Your task to perform on an android device: move a message to another label in the gmail app Image 0: 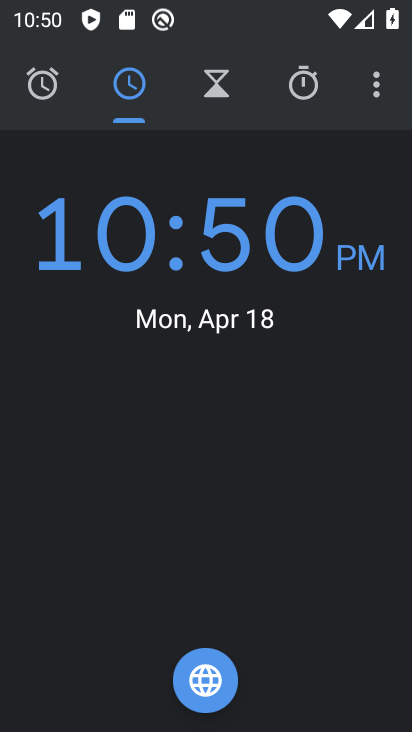
Step 0: press home button
Your task to perform on an android device: move a message to another label in the gmail app Image 1: 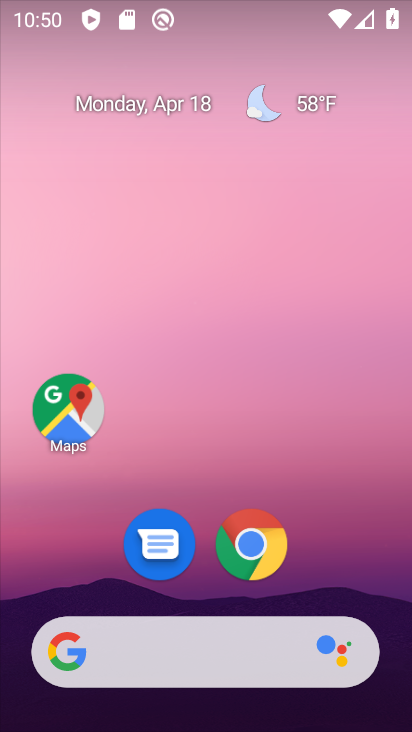
Step 1: drag from (211, 482) to (231, 75)
Your task to perform on an android device: move a message to another label in the gmail app Image 2: 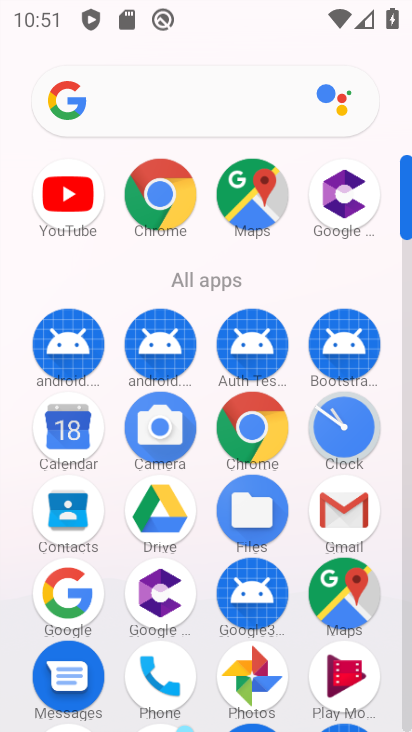
Step 2: drag from (291, 549) to (325, 306)
Your task to perform on an android device: move a message to another label in the gmail app Image 3: 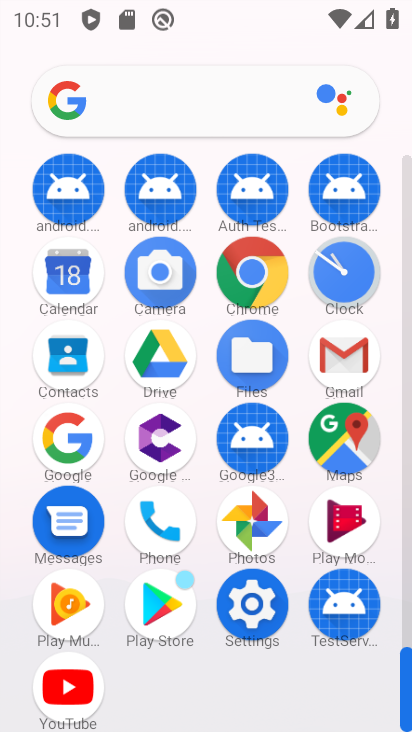
Step 3: click (348, 354)
Your task to perform on an android device: move a message to another label in the gmail app Image 4: 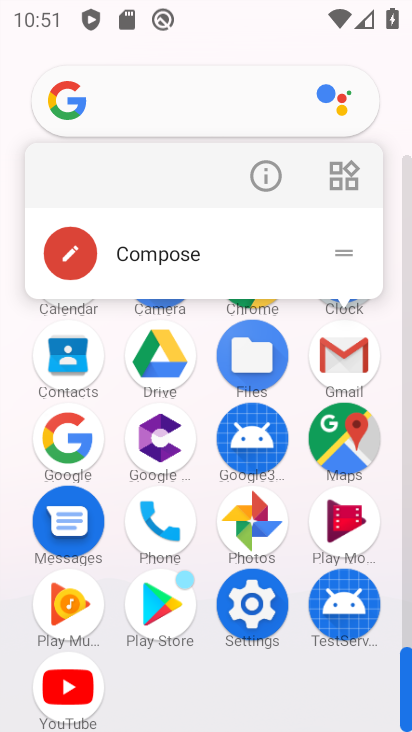
Step 4: click (348, 354)
Your task to perform on an android device: move a message to another label in the gmail app Image 5: 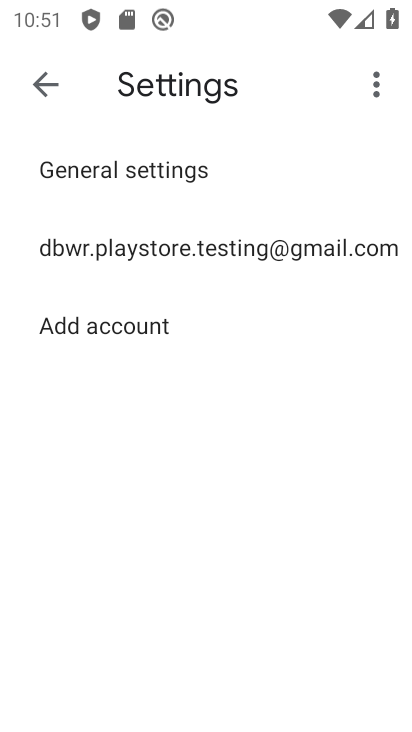
Step 5: press back button
Your task to perform on an android device: move a message to another label in the gmail app Image 6: 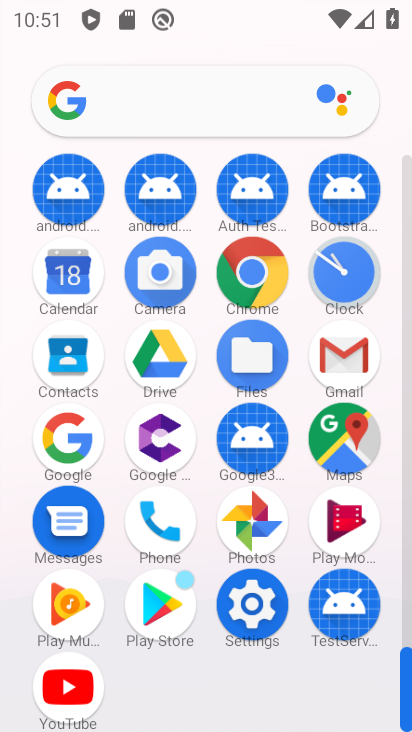
Step 6: click (351, 357)
Your task to perform on an android device: move a message to another label in the gmail app Image 7: 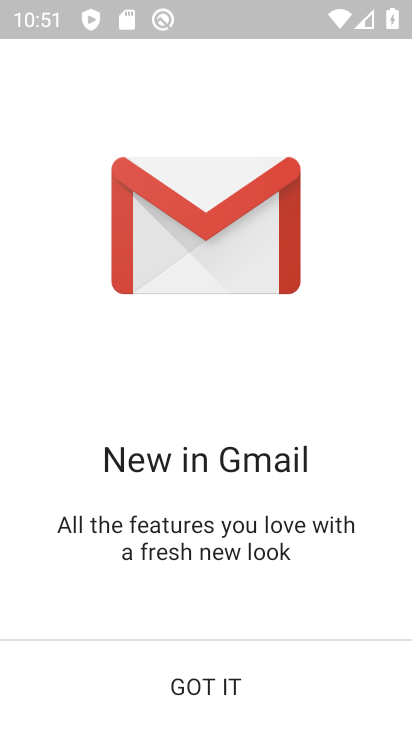
Step 7: click (201, 674)
Your task to perform on an android device: move a message to another label in the gmail app Image 8: 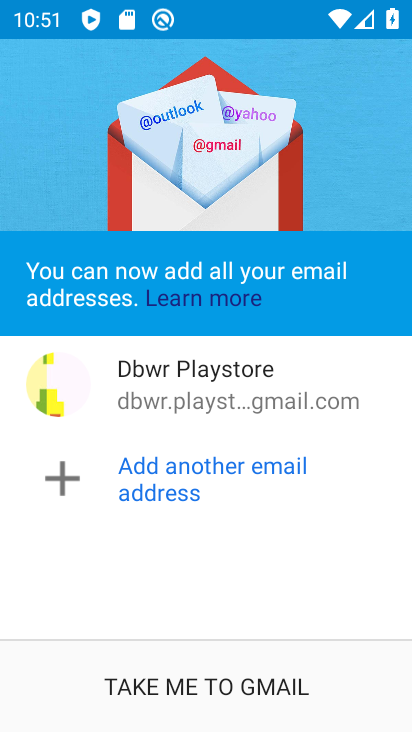
Step 8: click (201, 691)
Your task to perform on an android device: move a message to another label in the gmail app Image 9: 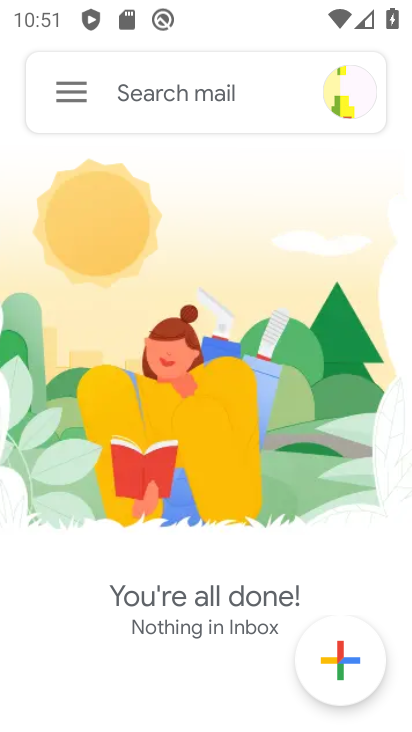
Step 9: click (81, 86)
Your task to perform on an android device: move a message to another label in the gmail app Image 10: 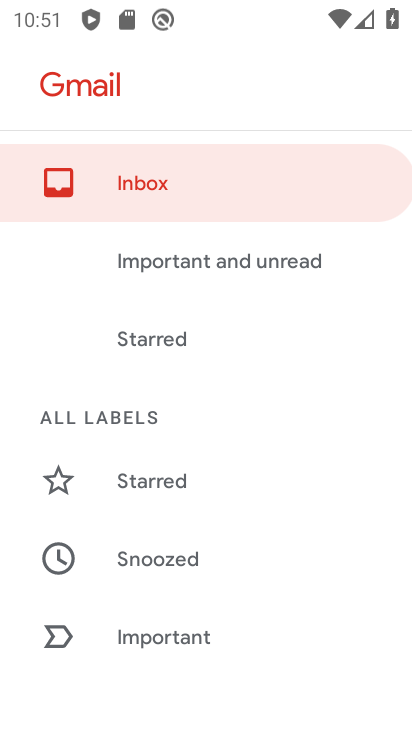
Step 10: drag from (135, 518) to (146, 409)
Your task to perform on an android device: move a message to another label in the gmail app Image 11: 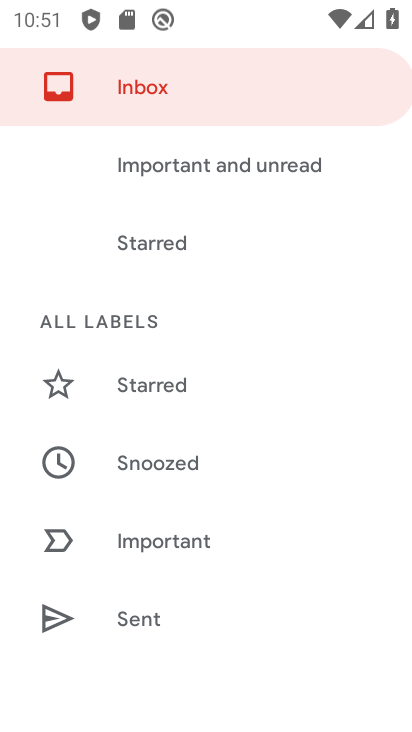
Step 11: drag from (157, 595) to (170, 473)
Your task to perform on an android device: move a message to another label in the gmail app Image 12: 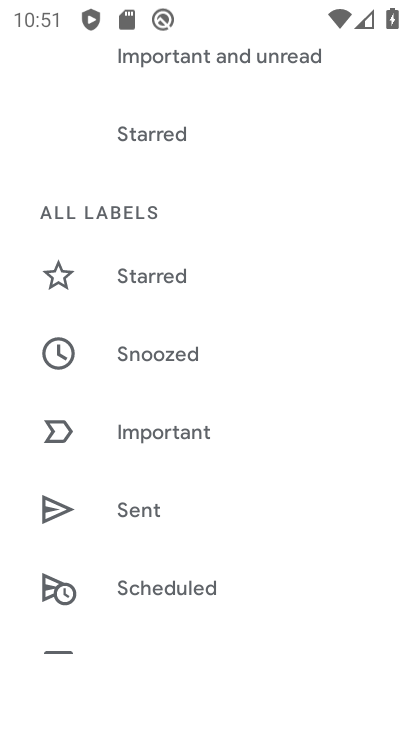
Step 12: drag from (189, 588) to (189, 480)
Your task to perform on an android device: move a message to another label in the gmail app Image 13: 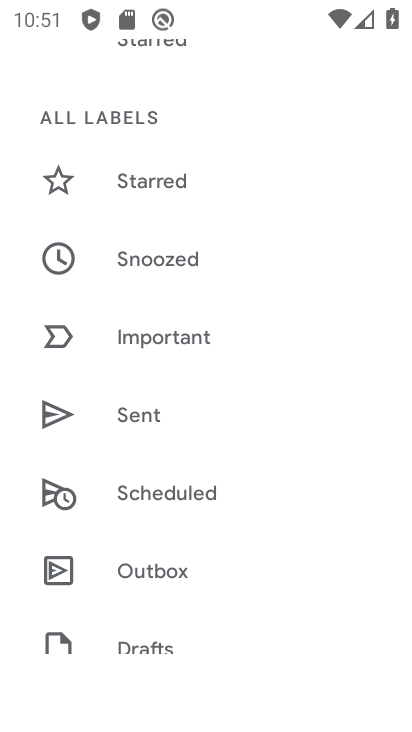
Step 13: drag from (194, 582) to (214, 464)
Your task to perform on an android device: move a message to another label in the gmail app Image 14: 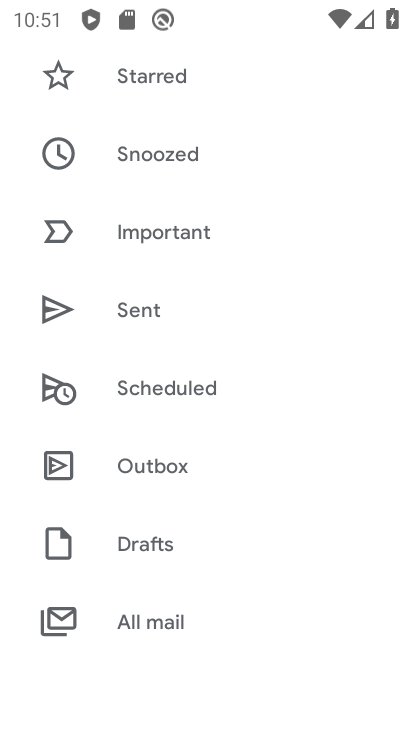
Step 14: drag from (215, 560) to (209, 481)
Your task to perform on an android device: move a message to another label in the gmail app Image 15: 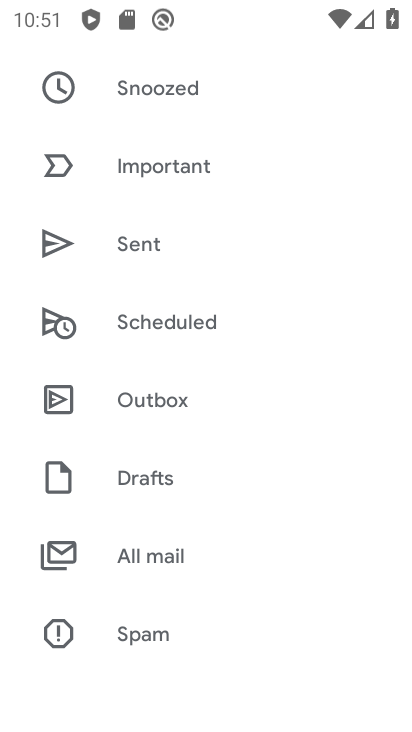
Step 15: click (158, 554)
Your task to perform on an android device: move a message to another label in the gmail app Image 16: 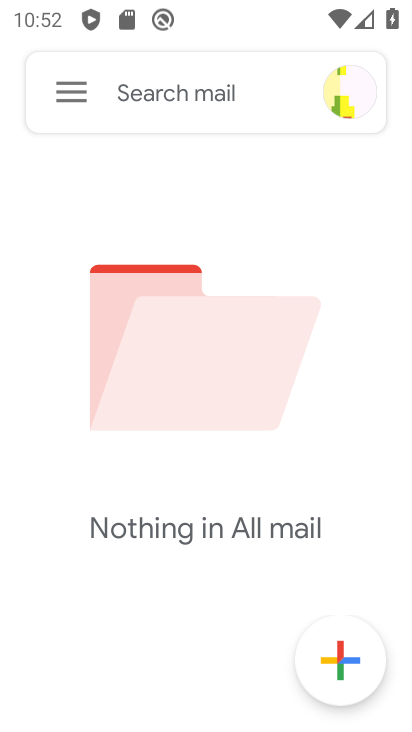
Step 16: task complete